Your task to perform on an android device: Go to Amazon Image 0: 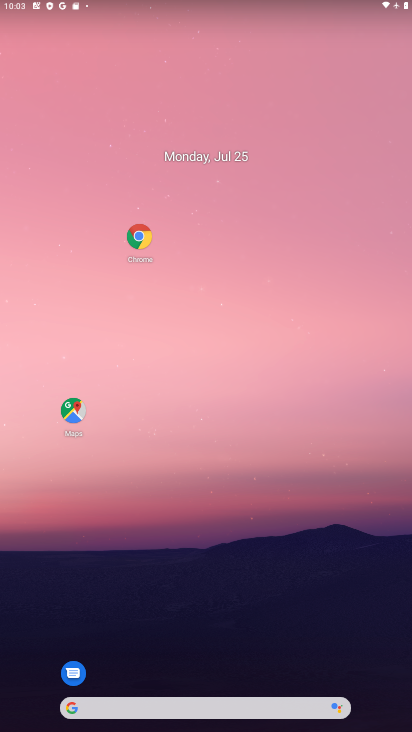
Step 0: click (146, 248)
Your task to perform on an android device: Go to Amazon Image 1: 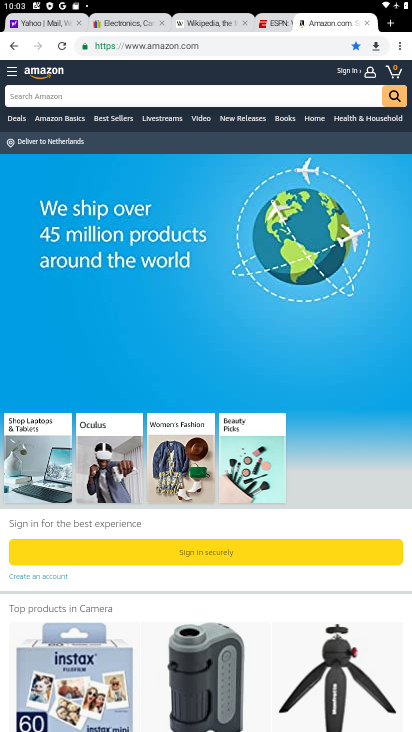
Step 1: task complete